Your task to perform on an android device: see tabs open on other devices in the chrome app Image 0: 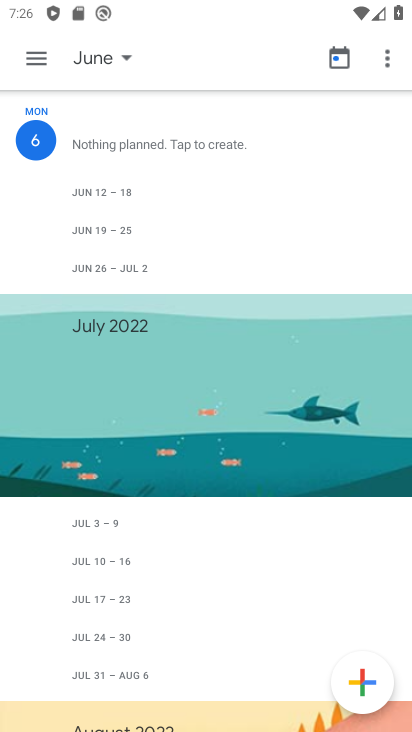
Step 0: press home button
Your task to perform on an android device: see tabs open on other devices in the chrome app Image 1: 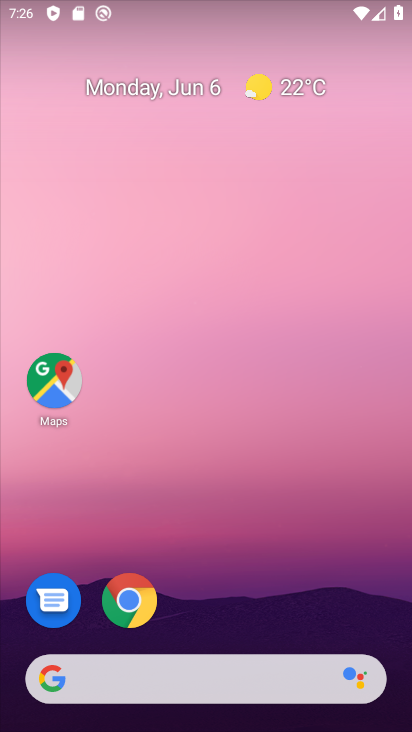
Step 1: click (129, 601)
Your task to perform on an android device: see tabs open on other devices in the chrome app Image 2: 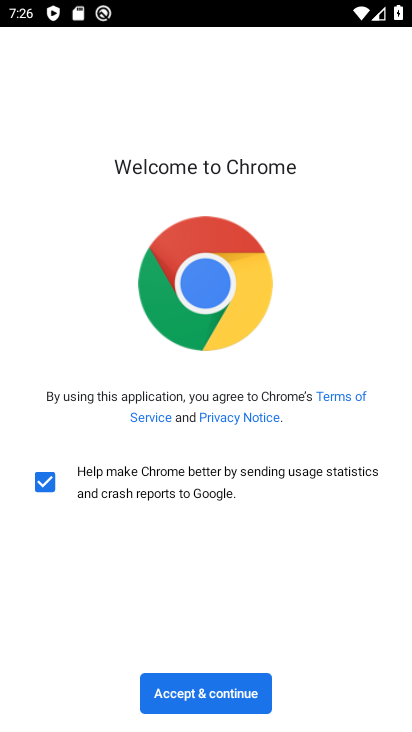
Step 2: click (196, 690)
Your task to perform on an android device: see tabs open on other devices in the chrome app Image 3: 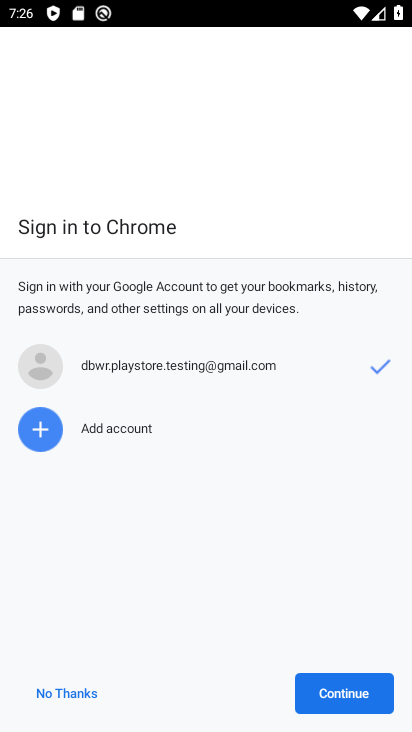
Step 3: click (362, 695)
Your task to perform on an android device: see tabs open on other devices in the chrome app Image 4: 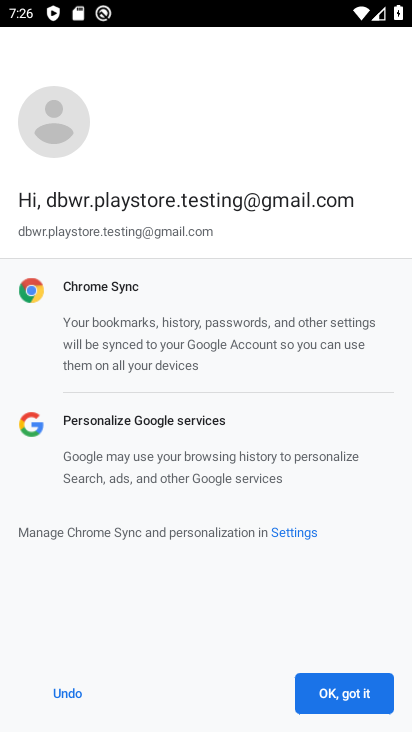
Step 4: click (362, 695)
Your task to perform on an android device: see tabs open on other devices in the chrome app Image 5: 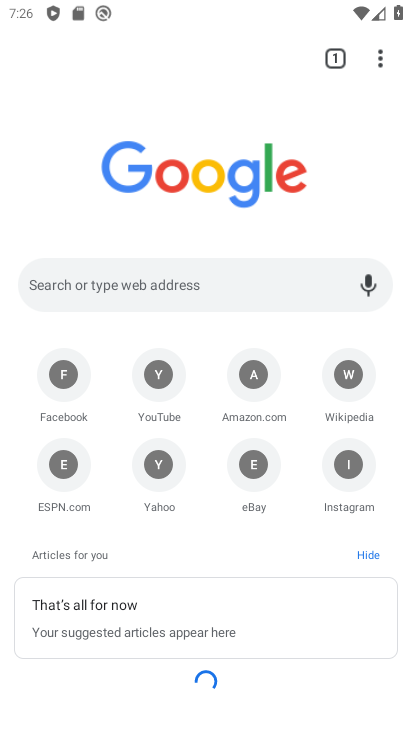
Step 5: click (382, 62)
Your task to perform on an android device: see tabs open on other devices in the chrome app Image 6: 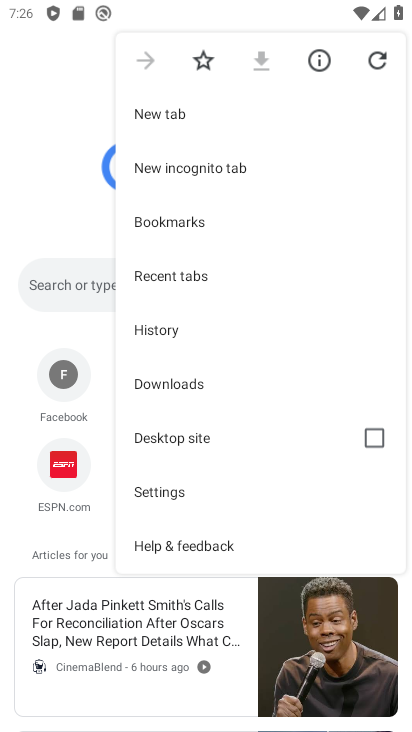
Step 6: click (189, 274)
Your task to perform on an android device: see tabs open on other devices in the chrome app Image 7: 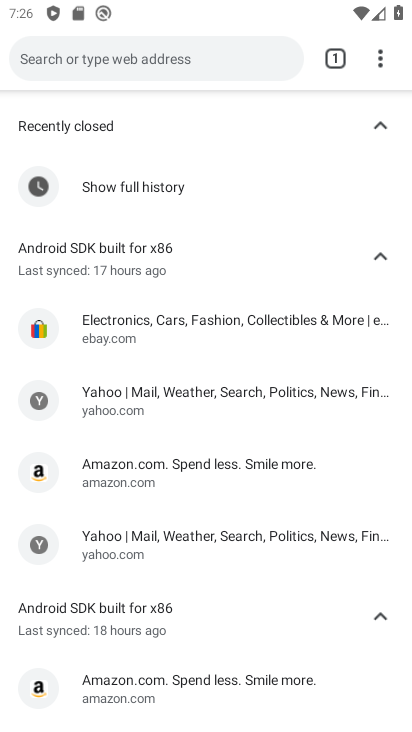
Step 7: task complete